Your task to perform on an android device: Go to Maps Image 0: 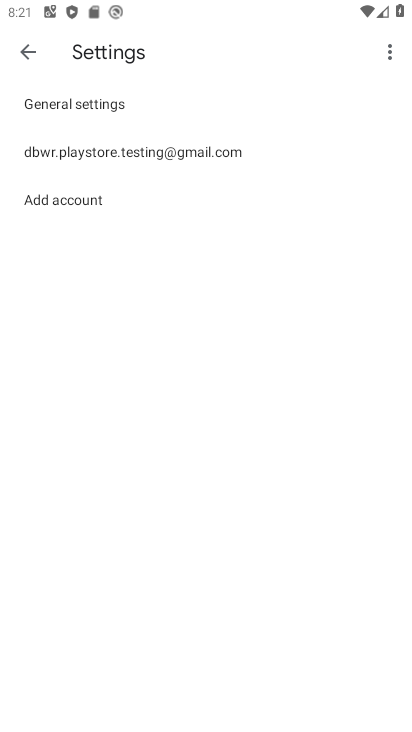
Step 0: press home button
Your task to perform on an android device: Go to Maps Image 1: 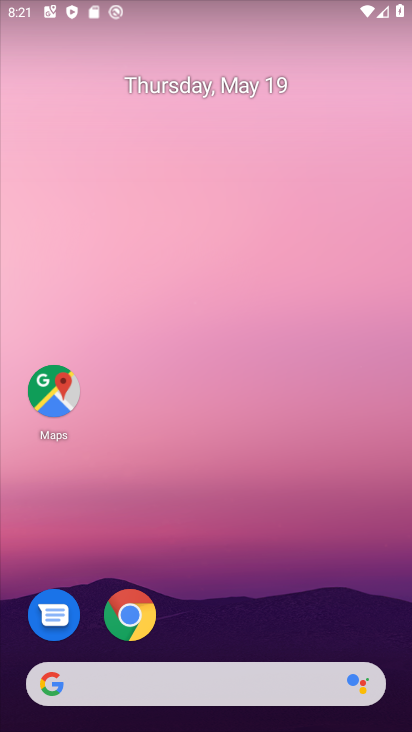
Step 1: click (46, 385)
Your task to perform on an android device: Go to Maps Image 2: 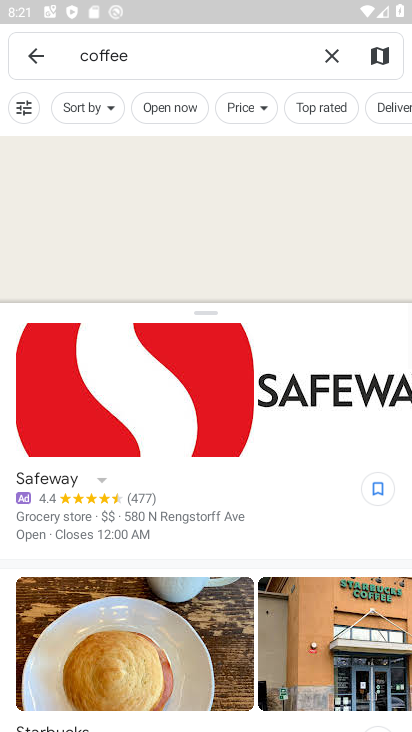
Step 2: task complete